Your task to perform on an android device: Open Reddit.com Image 0: 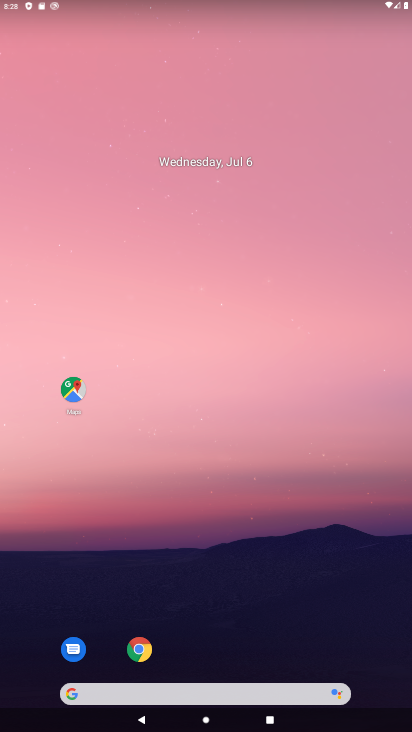
Step 0: click (142, 655)
Your task to perform on an android device: Open Reddit.com Image 1: 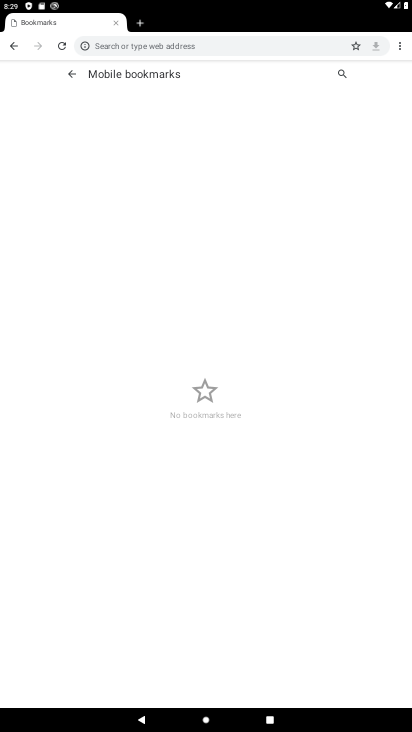
Step 1: click (133, 47)
Your task to perform on an android device: Open Reddit.com Image 2: 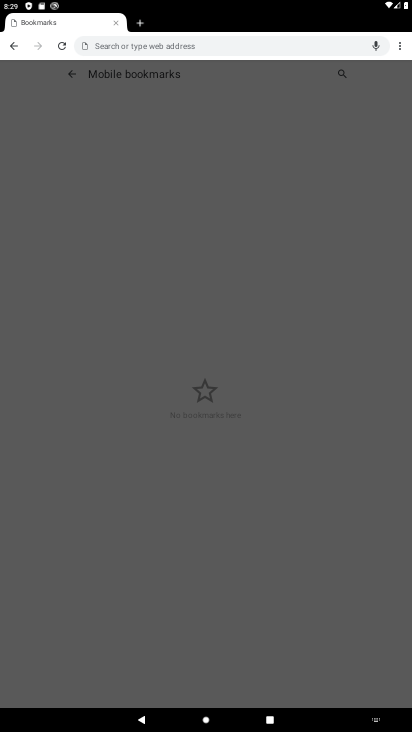
Step 2: type "Reddit.com"
Your task to perform on an android device: Open Reddit.com Image 3: 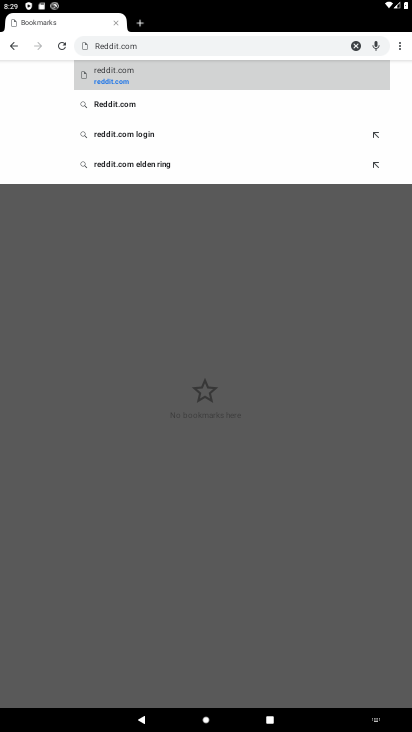
Step 3: click (157, 64)
Your task to perform on an android device: Open Reddit.com Image 4: 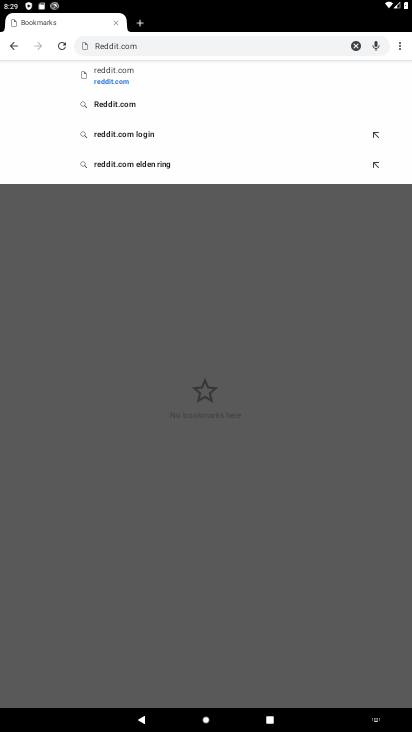
Step 4: click (120, 74)
Your task to perform on an android device: Open Reddit.com Image 5: 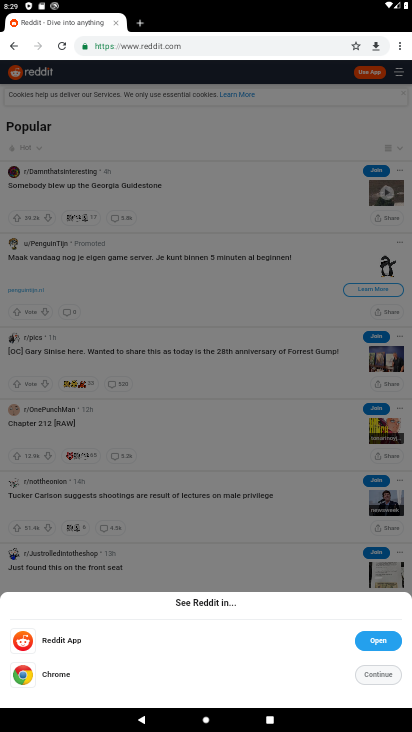
Step 5: task complete